Your task to perform on an android device: Search for vegetarian restaurants on Maps Image 0: 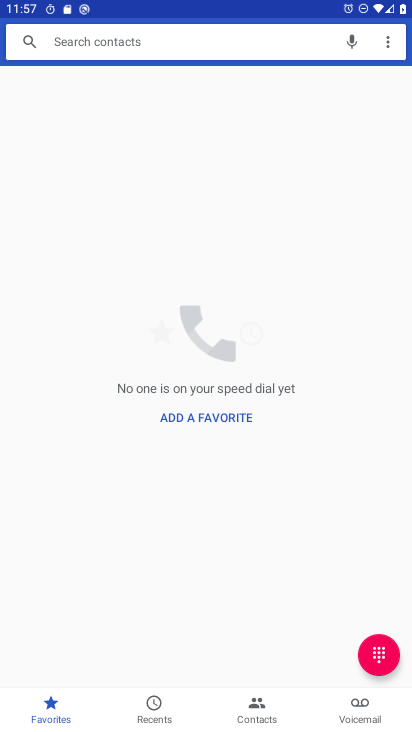
Step 0: press home button
Your task to perform on an android device: Search for vegetarian restaurants on Maps Image 1: 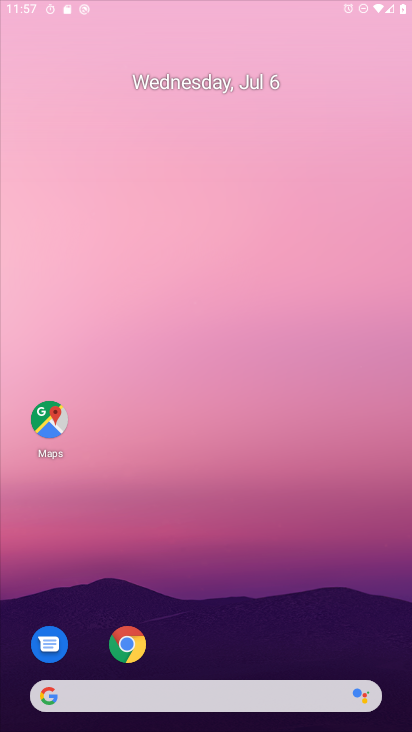
Step 1: drag from (185, 650) to (193, 184)
Your task to perform on an android device: Search for vegetarian restaurants on Maps Image 2: 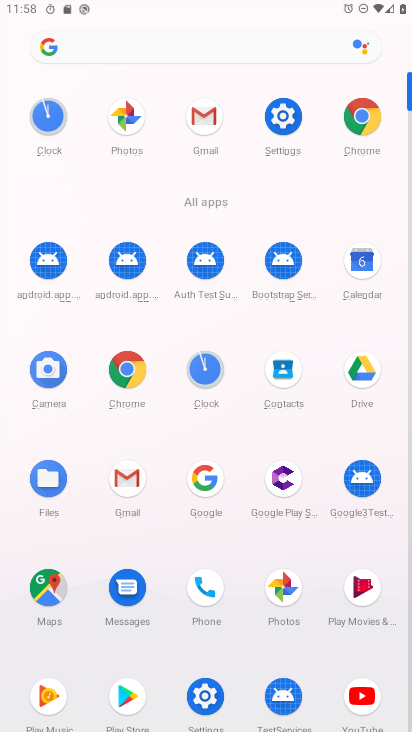
Step 2: click (51, 585)
Your task to perform on an android device: Search for vegetarian restaurants on Maps Image 3: 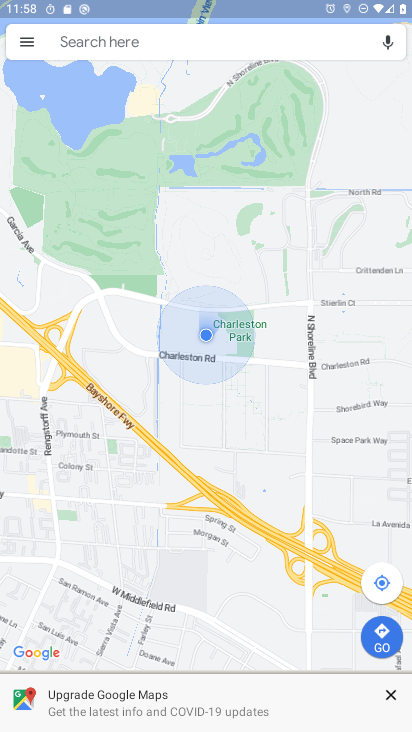
Step 3: click (148, 42)
Your task to perform on an android device: Search for vegetarian restaurants on Maps Image 4: 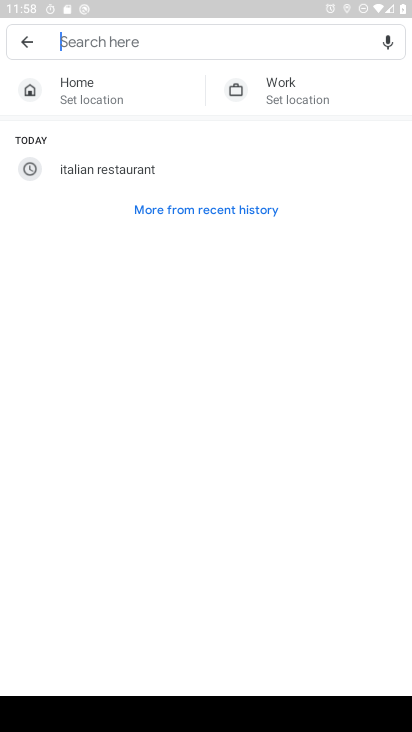
Step 4: type "vegetarian restaurants"
Your task to perform on an android device: Search for vegetarian restaurants on Maps Image 5: 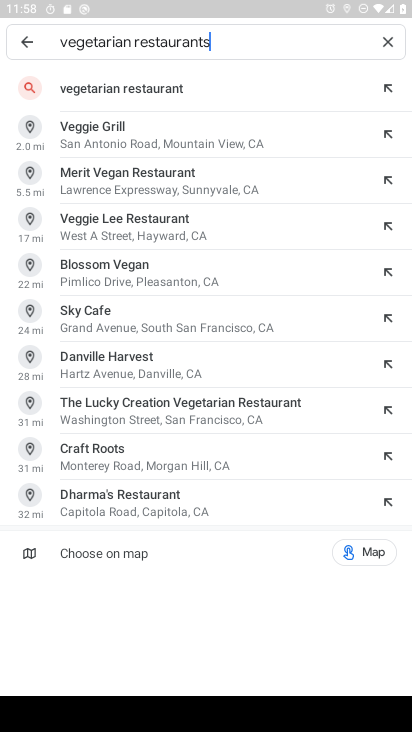
Step 5: click (119, 91)
Your task to perform on an android device: Search for vegetarian restaurants on Maps Image 6: 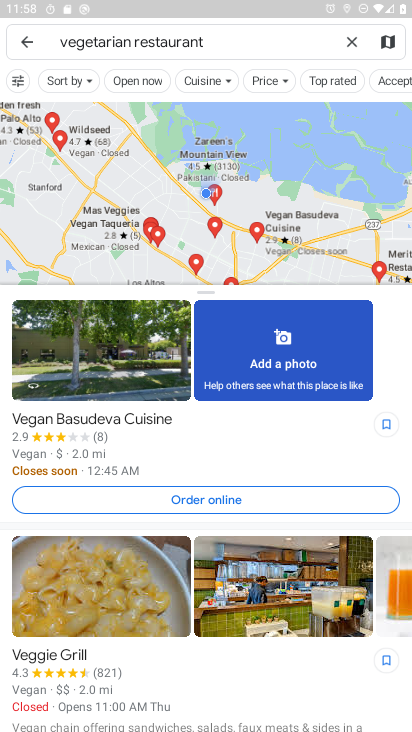
Step 6: task complete